Your task to perform on an android device: turn pop-ups on in chrome Image 0: 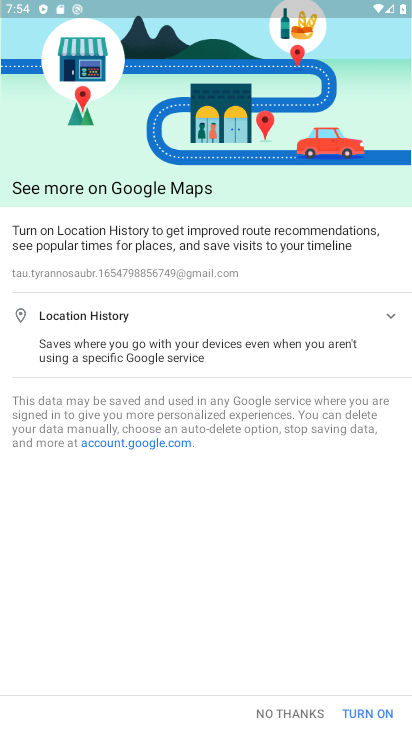
Step 0: press home button
Your task to perform on an android device: turn pop-ups on in chrome Image 1: 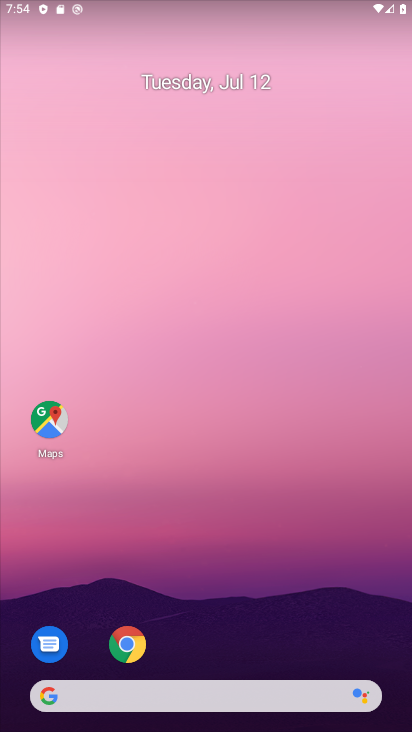
Step 1: drag from (212, 652) to (235, 123)
Your task to perform on an android device: turn pop-ups on in chrome Image 2: 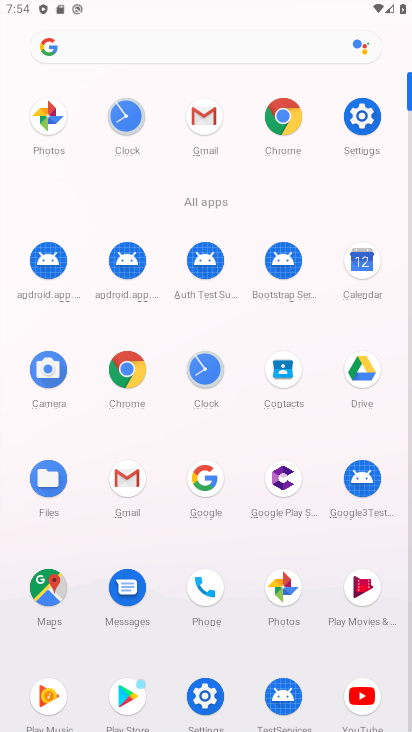
Step 2: click (273, 111)
Your task to perform on an android device: turn pop-ups on in chrome Image 3: 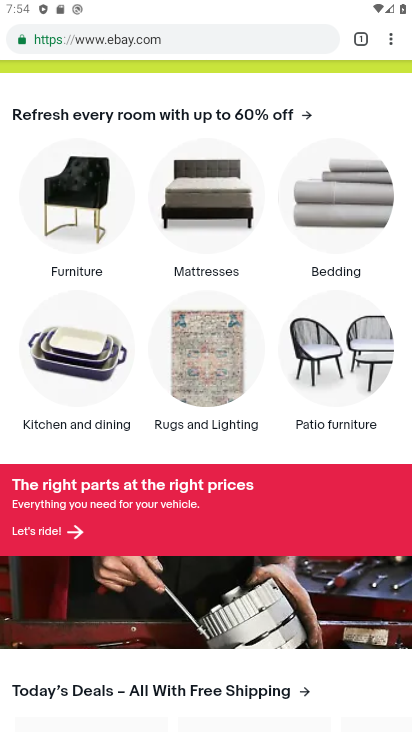
Step 3: drag from (266, 134) to (313, 570)
Your task to perform on an android device: turn pop-ups on in chrome Image 4: 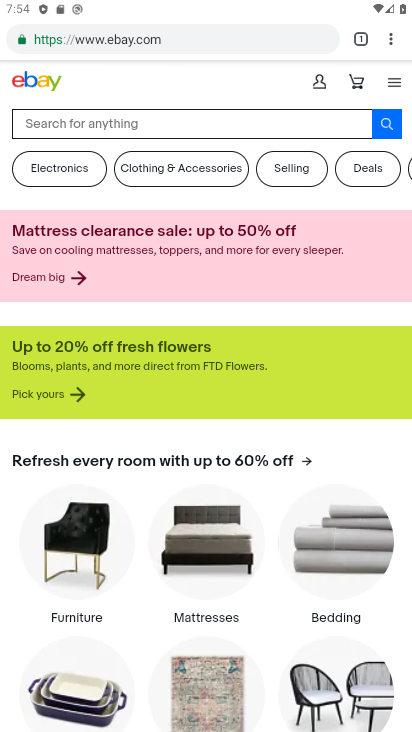
Step 4: click (390, 42)
Your task to perform on an android device: turn pop-ups on in chrome Image 5: 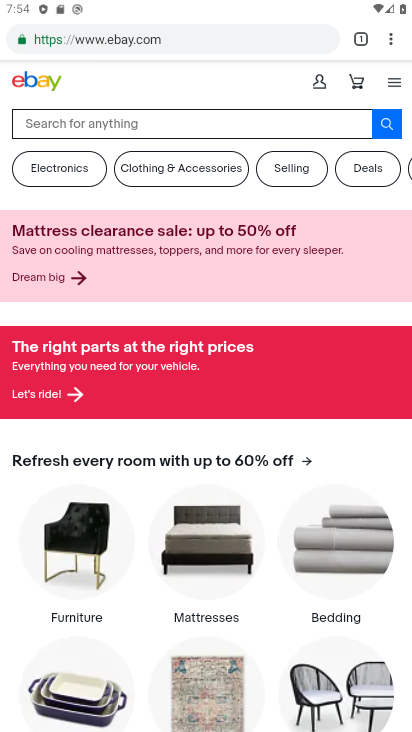
Step 5: click (387, 31)
Your task to perform on an android device: turn pop-ups on in chrome Image 6: 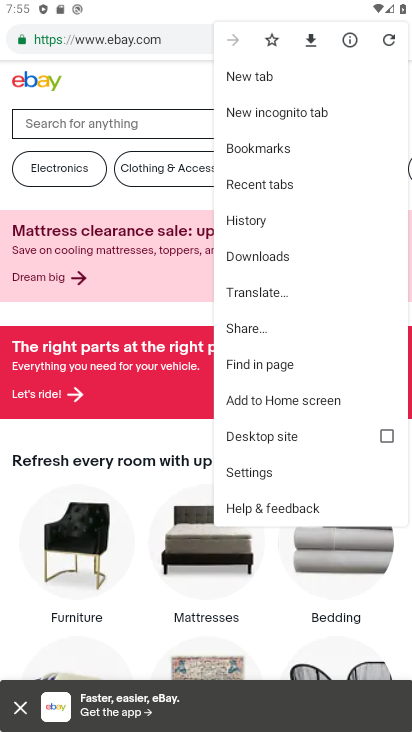
Step 6: click (278, 467)
Your task to perform on an android device: turn pop-ups on in chrome Image 7: 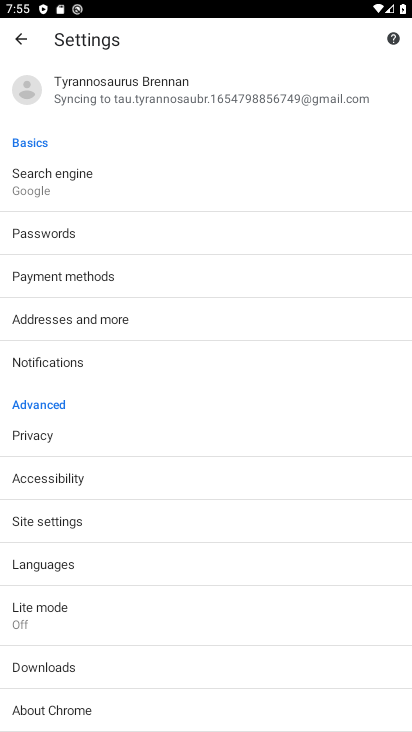
Step 7: click (88, 517)
Your task to perform on an android device: turn pop-ups on in chrome Image 8: 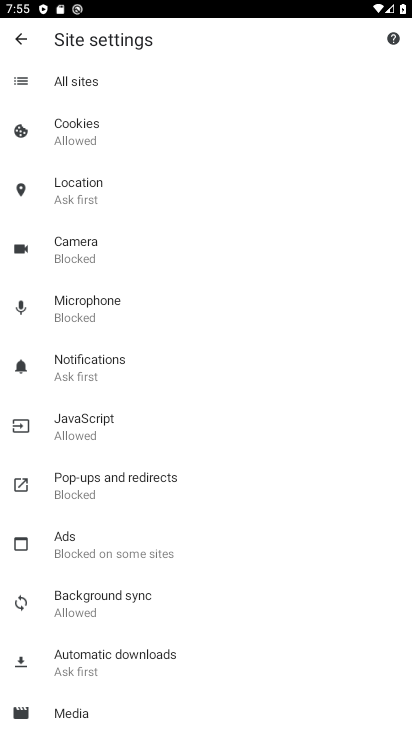
Step 8: click (128, 485)
Your task to perform on an android device: turn pop-ups on in chrome Image 9: 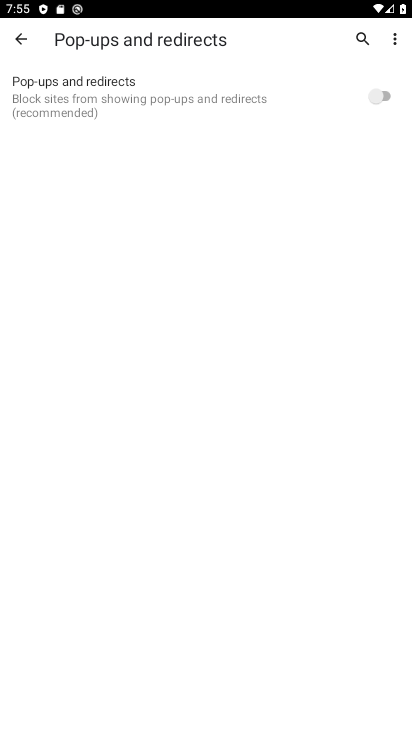
Step 9: click (385, 93)
Your task to perform on an android device: turn pop-ups on in chrome Image 10: 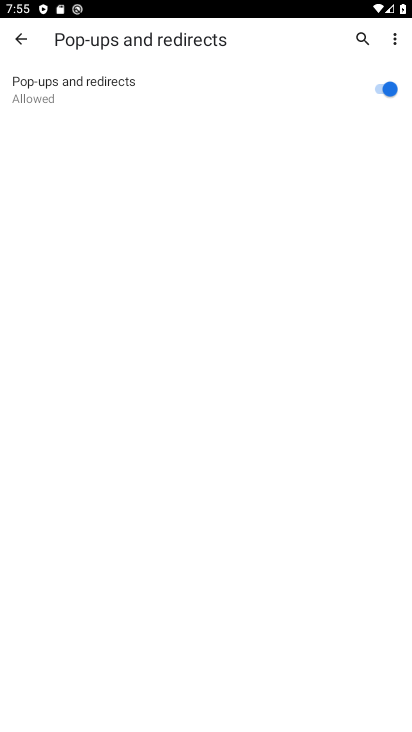
Step 10: task complete